Your task to perform on an android device: Open internet settings Image 0: 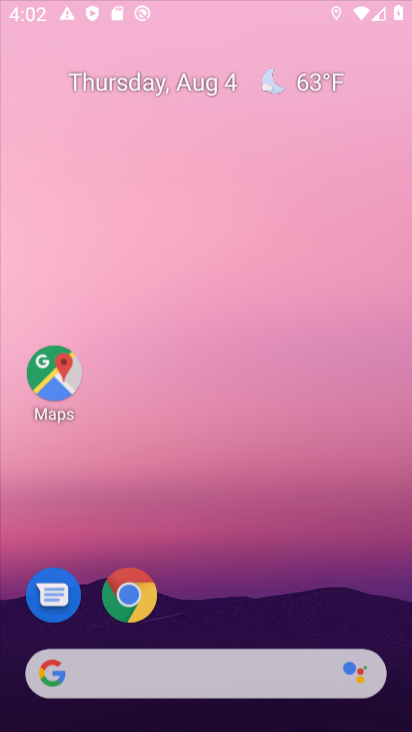
Step 0: press home button
Your task to perform on an android device: Open internet settings Image 1: 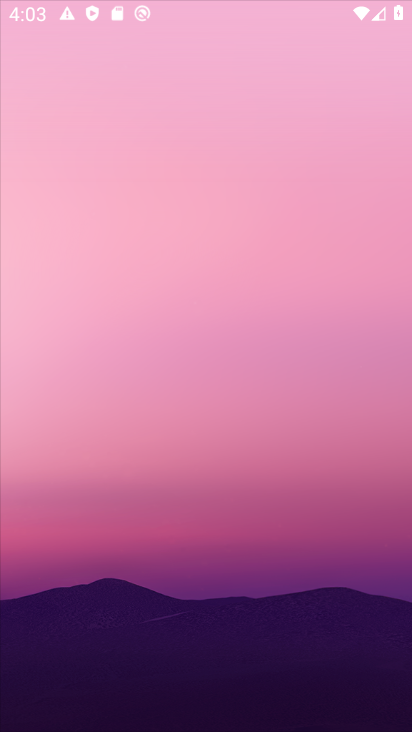
Step 1: drag from (277, 602) to (272, 125)
Your task to perform on an android device: Open internet settings Image 2: 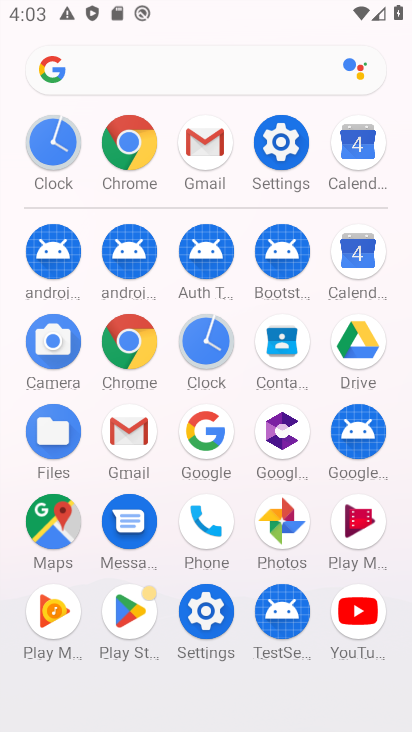
Step 2: click (299, 134)
Your task to perform on an android device: Open internet settings Image 3: 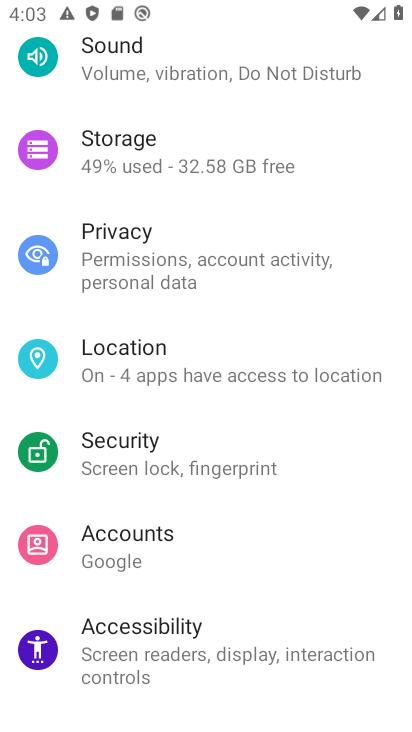
Step 3: drag from (218, 115) to (180, 621)
Your task to perform on an android device: Open internet settings Image 4: 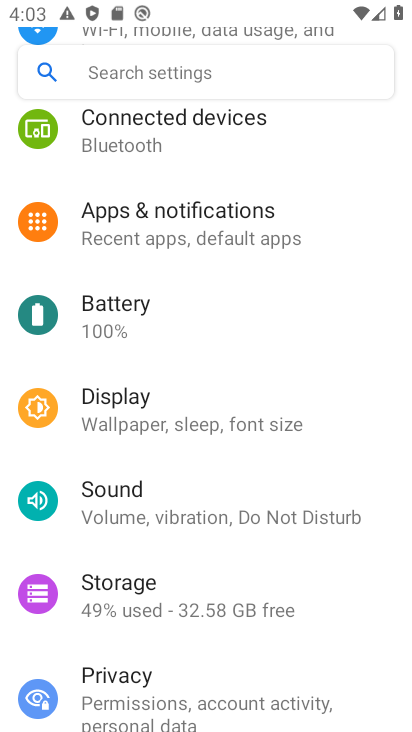
Step 4: drag from (220, 154) to (242, 441)
Your task to perform on an android device: Open internet settings Image 5: 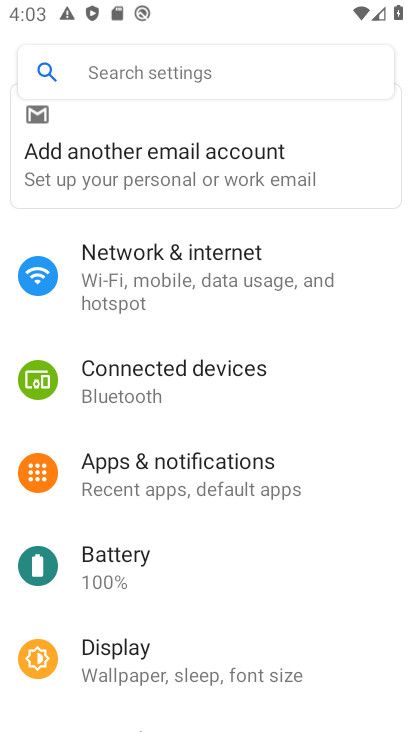
Step 5: click (222, 250)
Your task to perform on an android device: Open internet settings Image 6: 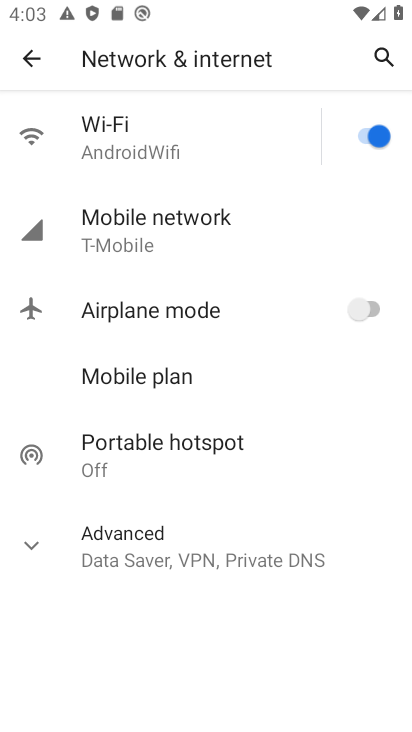
Step 6: click (183, 558)
Your task to perform on an android device: Open internet settings Image 7: 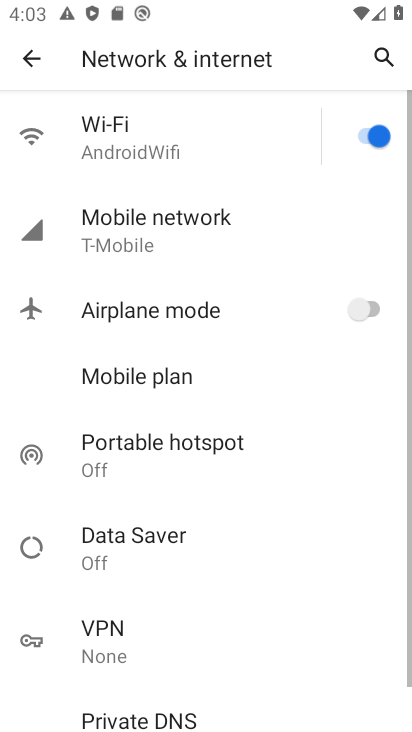
Step 7: task complete